Your task to perform on an android device: see sites visited before in the chrome app Image 0: 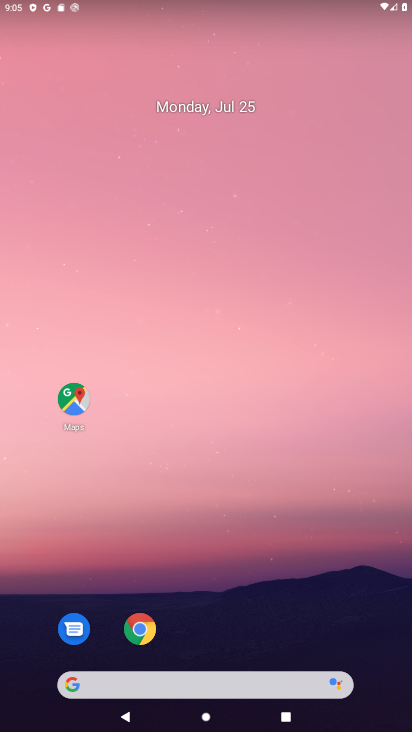
Step 0: click (147, 623)
Your task to perform on an android device: see sites visited before in the chrome app Image 1: 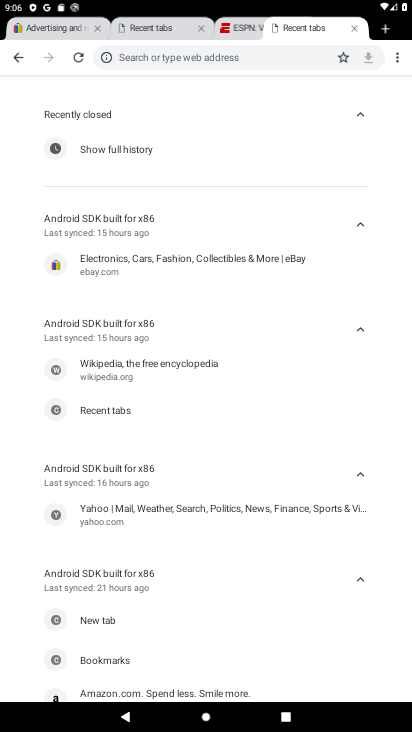
Step 1: task complete